Your task to perform on an android device: Go to CNN.com Image 0: 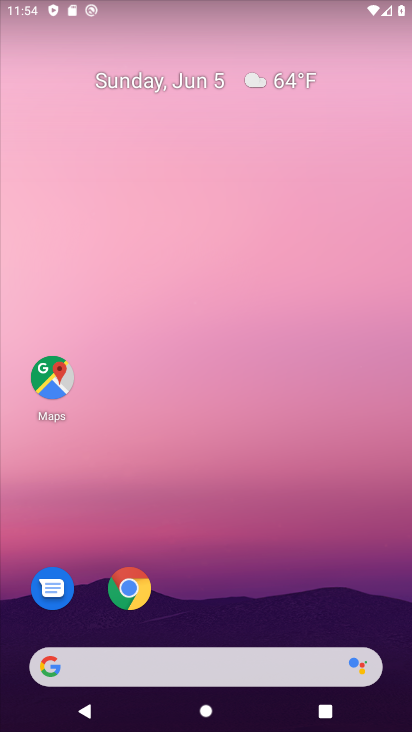
Step 0: click (130, 590)
Your task to perform on an android device: Go to CNN.com Image 1: 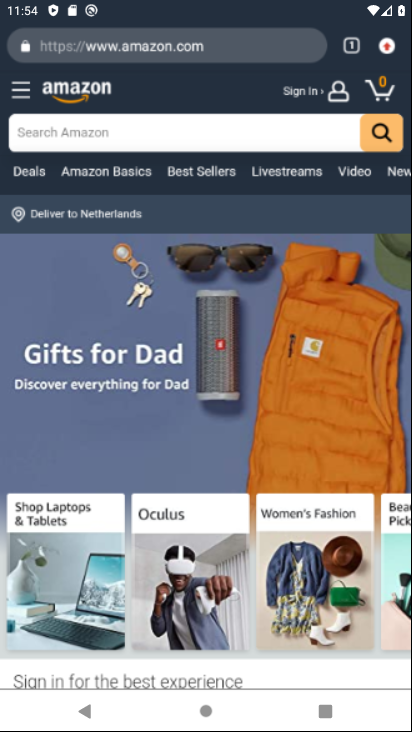
Step 1: click (354, 47)
Your task to perform on an android device: Go to CNN.com Image 2: 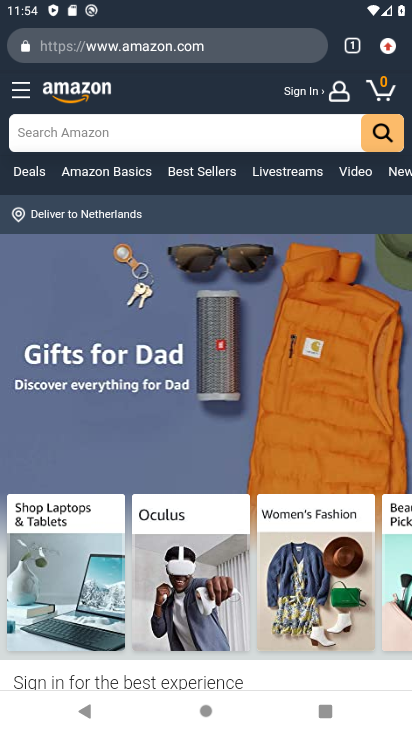
Step 2: click (354, 51)
Your task to perform on an android device: Go to CNN.com Image 3: 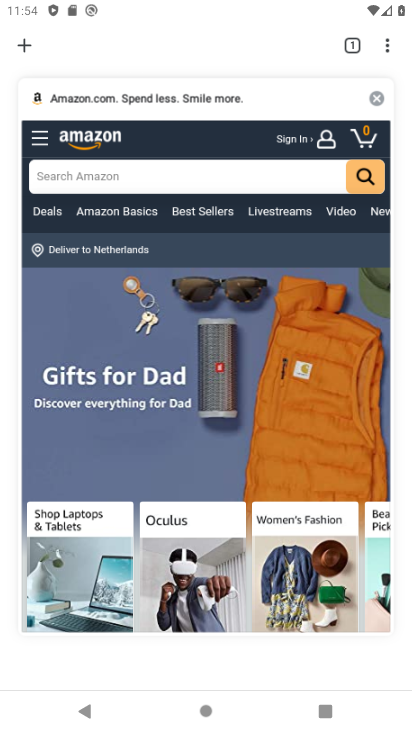
Step 3: click (379, 99)
Your task to perform on an android device: Go to CNN.com Image 4: 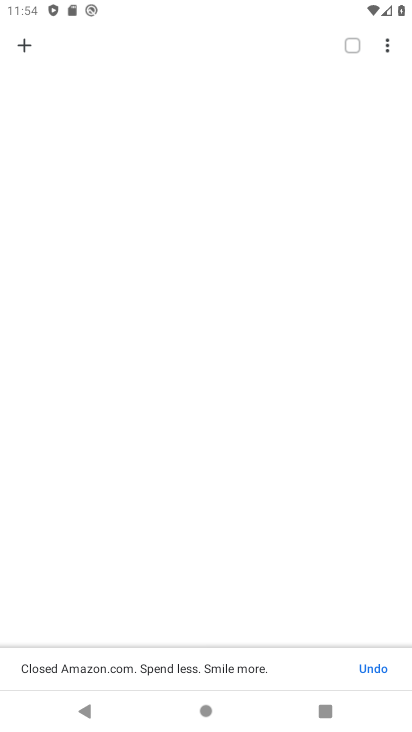
Step 4: click (25, 48)
Your task to perform on an android device: Go to CNN.com Image 5: 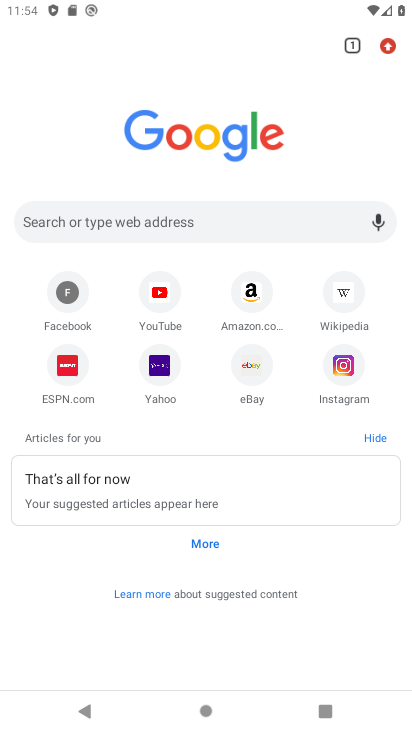
Step 5: click (242, 229)
Your task to perform on an android device: Go to CNN.com Image 6: 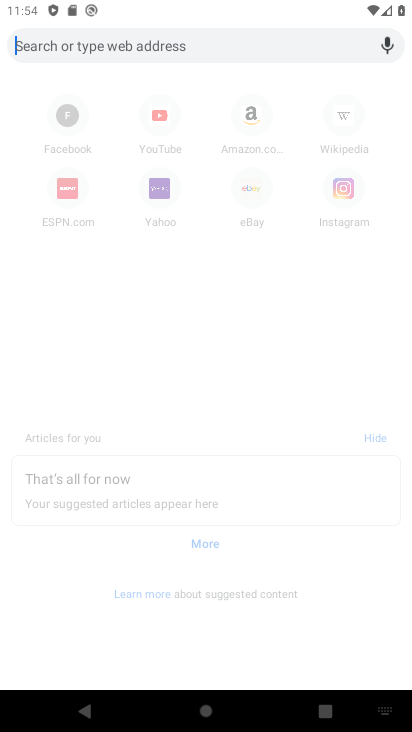
Step 6: type "Cnn.com"
Your task to perform on an android device: Go to CNN.com Image 7: 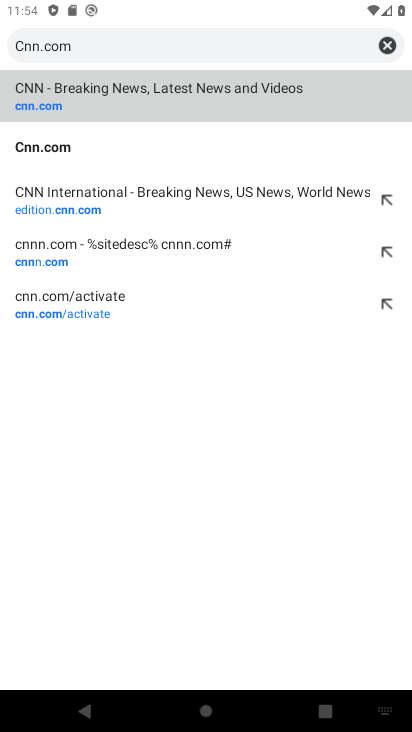
Step 7: click (147, 109)
Your task to perform on an android device: Go to CNN.com Image 8: 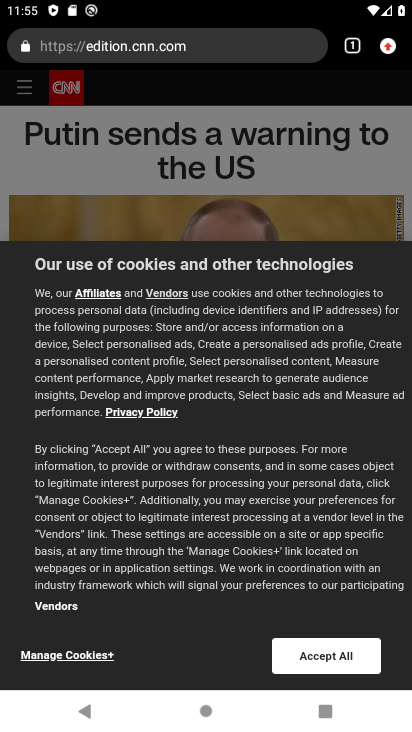
Step 8: task complete